Your task to perform on an android device: turn vacation reply on in the gmail app Image 0: 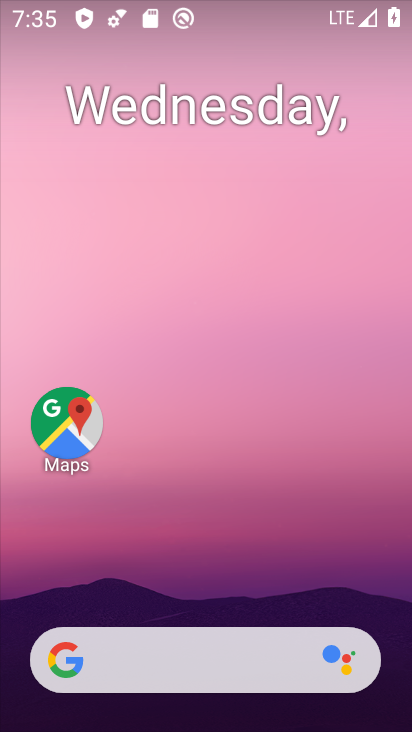
Step 0: drag from (212, 627) to (165, 198)
Your task to perform on an android device: turn vacation reply on in the gmail app Image 1: 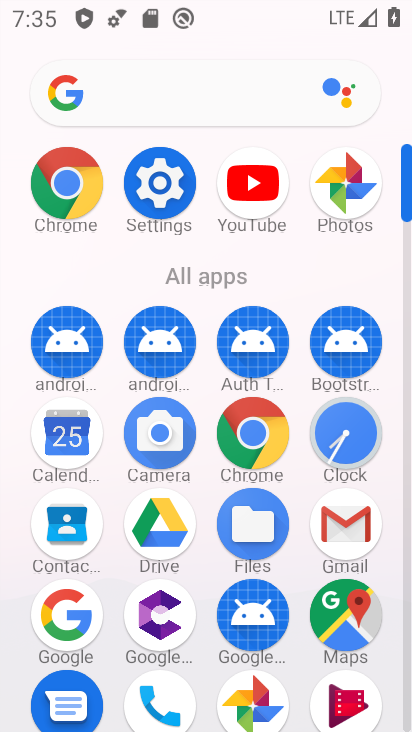
Step 1: click (360, 529)
Your task to perform on an android device: turn vacation reply on in the gmail app Image 2: 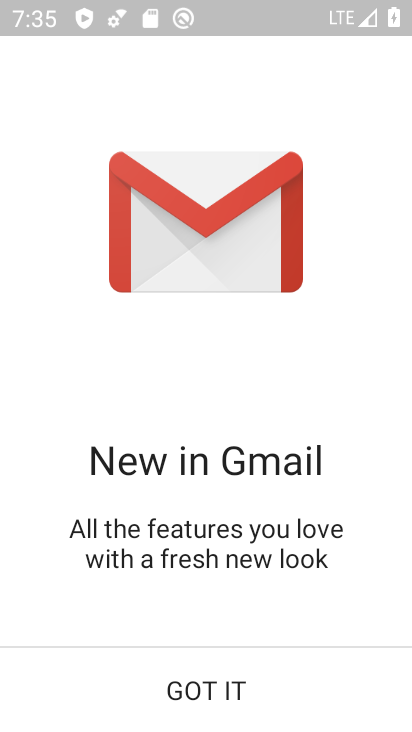
Step 2: click (202, 667)
Your task to perform on an android device: turn vacation reply on in the gmail app Image 3: 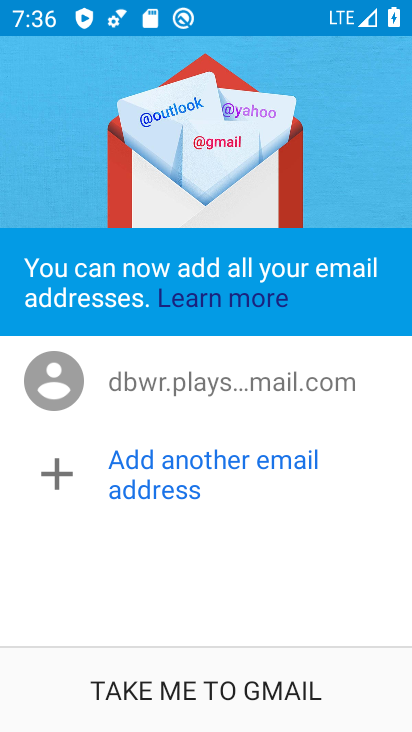
Step 3: click (202, 667)
Your task to perform on an android device: turn vacation reply on in the gmail app Image 4: 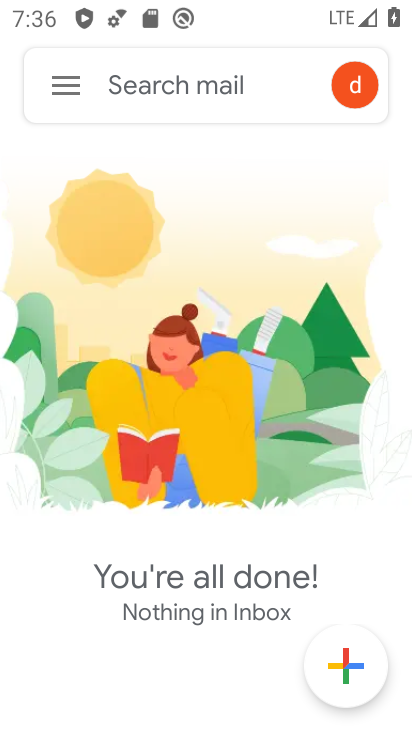
Step 4: click (69, 86)
Your task to perform on an android device: turn vacation reply on in the gmail app Image 5: 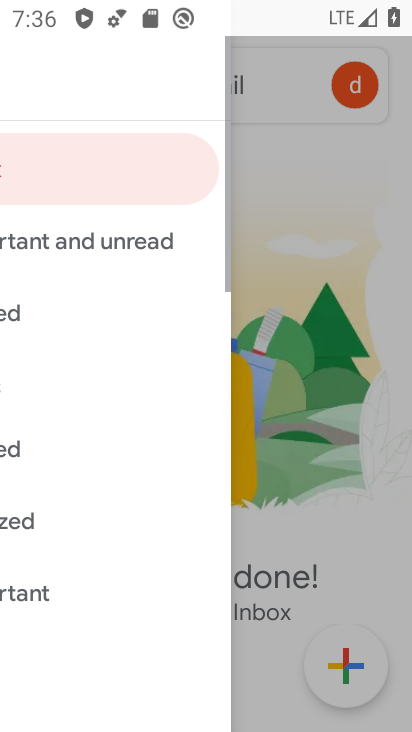
Step 5: click (69, 86)
Your task to perform on an android device: turn vacation reply on in the gmail app Image 6: 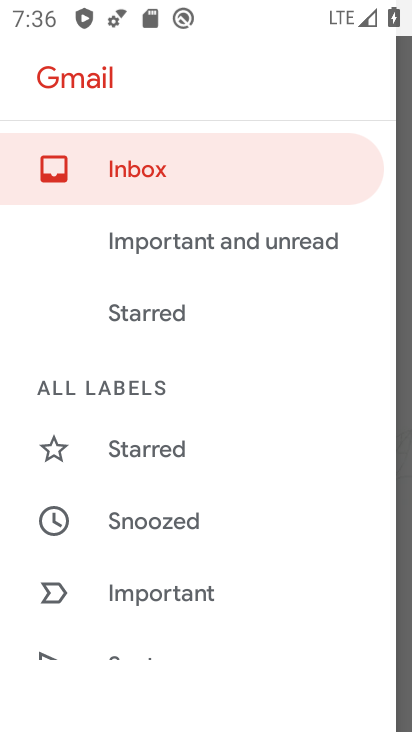
Step 6: drag from (169, 471) to (287, 130)
Your task to perform on an android device: turn vacation reply on in the gmail app Image 7: 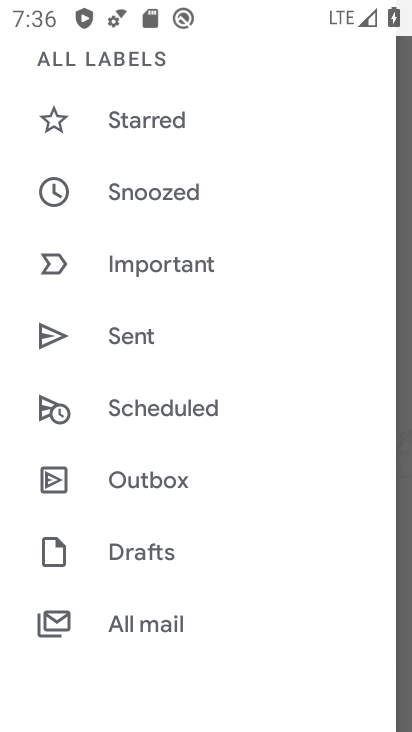
Step 7: drag from (239, 600) to (164, 8)
Your task to perform on an android device: turn vacation reply on in the gmail app Image 8: 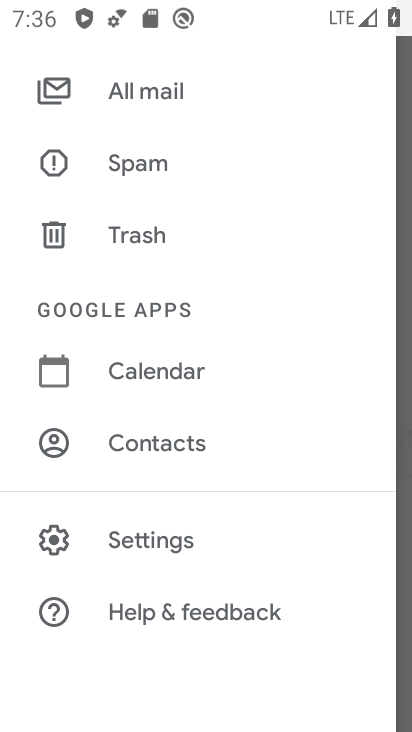
Step 8: drag from (180, 504) to (137, 183)
Your task to perform on an android device: turn vacation reply on in the gmail app Image 9: 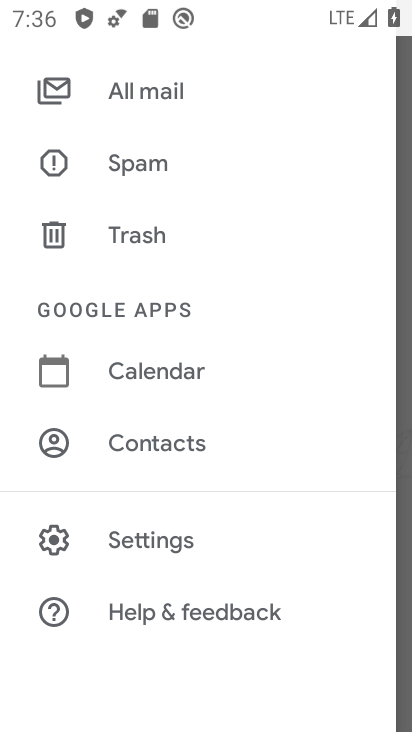
Step 9: click (139, 552)
Your task to perform on an android device: turn vacation reply on in the gmail app Image 10: 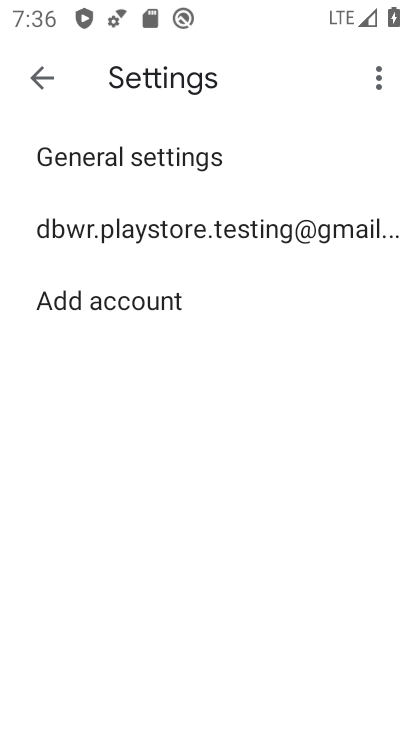
Step 10: click (197, 209)
Your task to perform on an android device: turn vacation reply on in the gmail app Image 11: 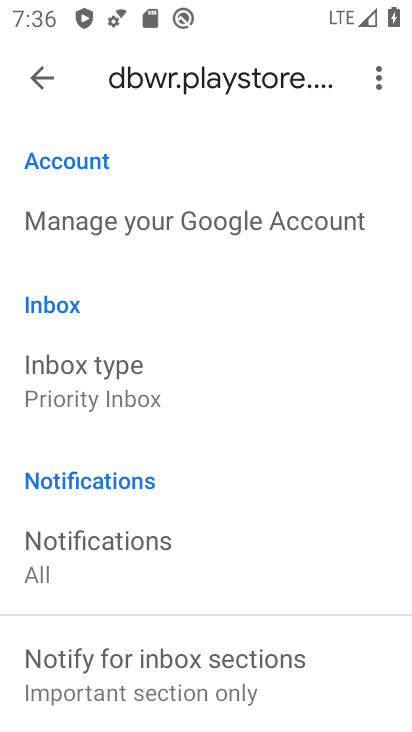
Step 11: drag from (231, 658) to (154, 343)
Your task to perform on an android device: turn vacation reply on in the gmail app Image 12: 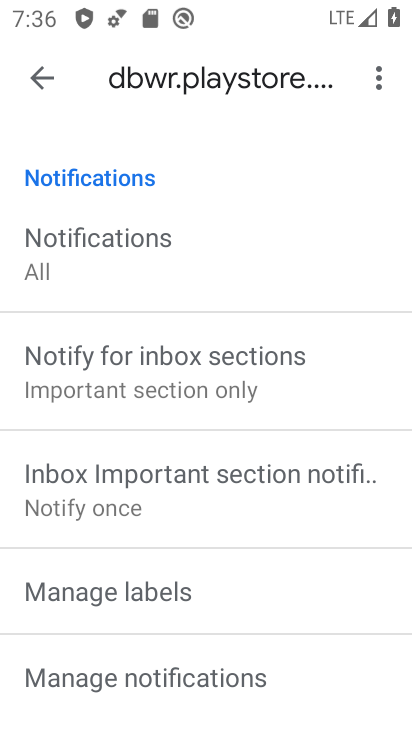
Step 12: drag from (166, 474) to (188, 227)
Your task to perform on an android device: turn vacation reply on in the gmail app Image 13: 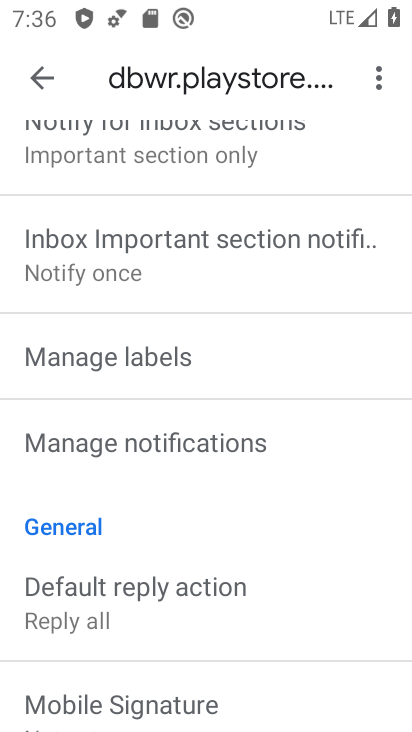
Step 13: drag from (146, 607) to (56, 209)
Your task to perform on an android device: turn vacation reply on in the gmail app Image 14: 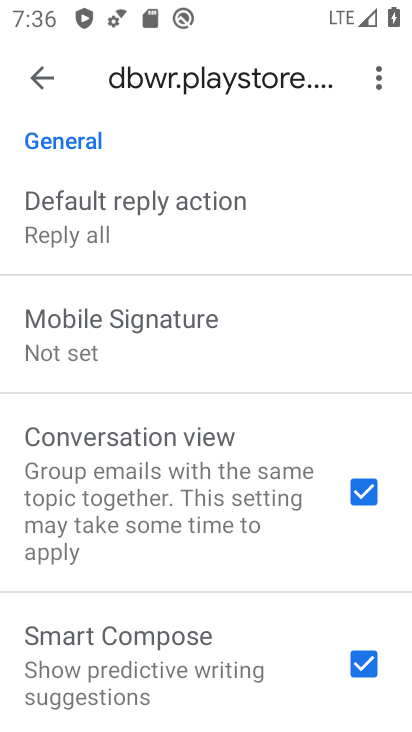
Step 14: drag from (168, 552) to (118, 206)
Your task to perform on an android device: turn vacation reply on in the gmail app Image 15: 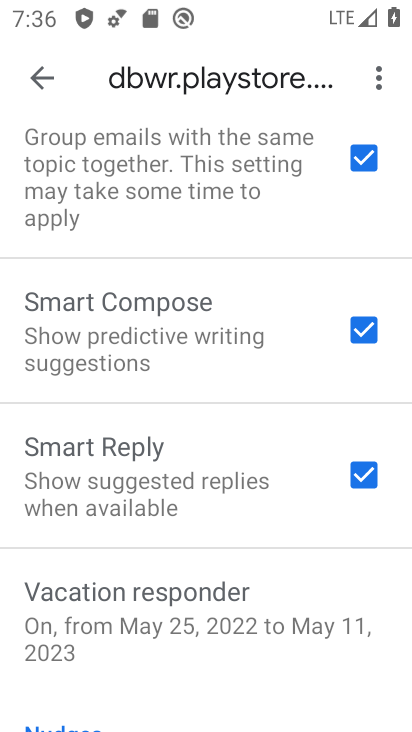
Step 15: click (247, 684)
Your task to perform on an android device: turn vacation reply on in the gmail app Image 16: 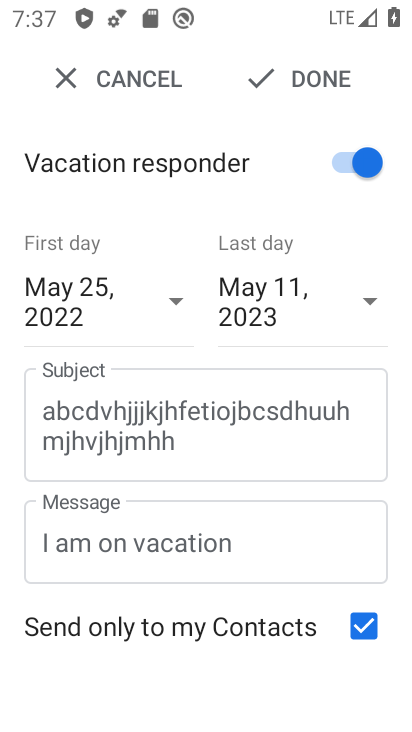
Step 16: task complete